Your task to perform on an android device: change alarm snooze length Image 0: 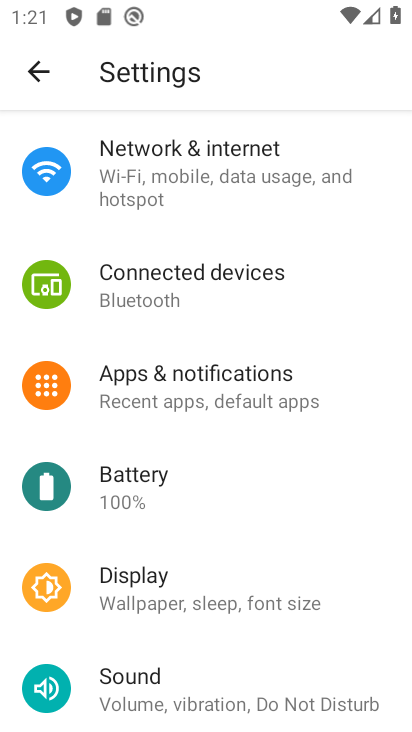
Step 0: press home button
Your task to perform on an android device: change alarm snooze length Image 1: 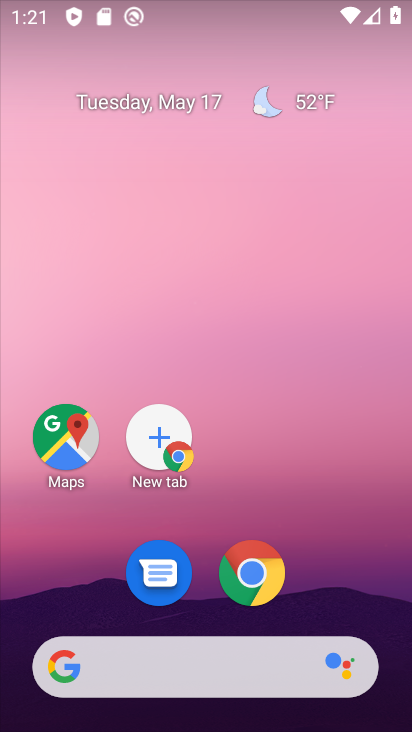
Step 1: drag from (316, 512) to (336, 160)
Your task to perform on an android device: change alarm snooze length Image 2: 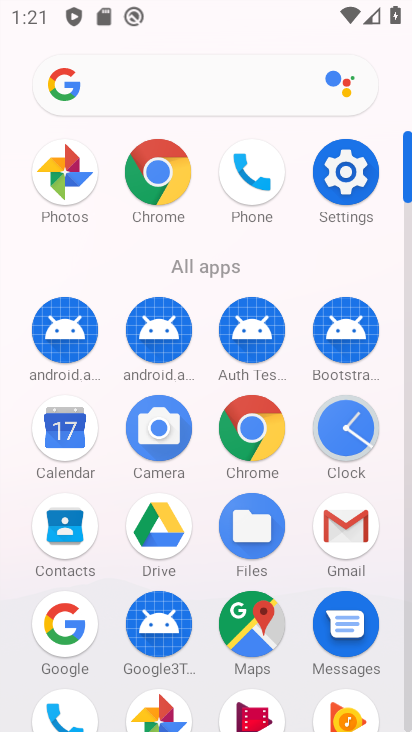
Step 2: click (358, 433)
Your task to perform on an android device: change alarm snooze length Image 3: 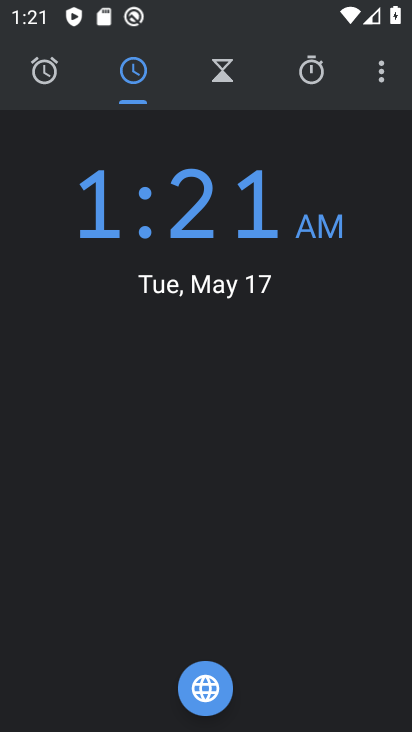
Step 3: click (389, 81)
Your task to perform on an android device: change alarm snooze length Image 4: 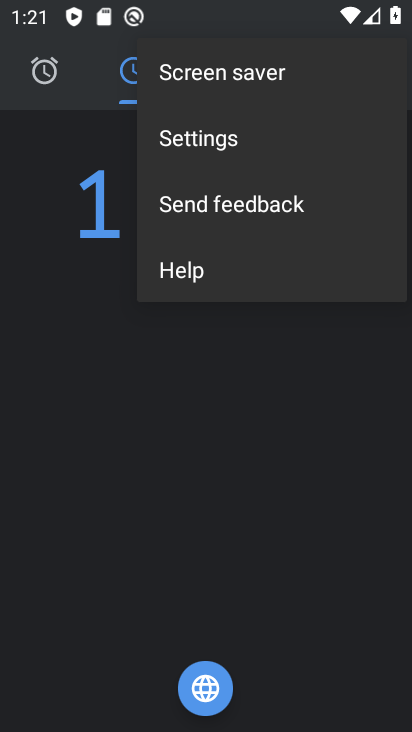
Step 4: click (288, 148)
Your task to perform on an android device: change alarm snooze length Image 5: 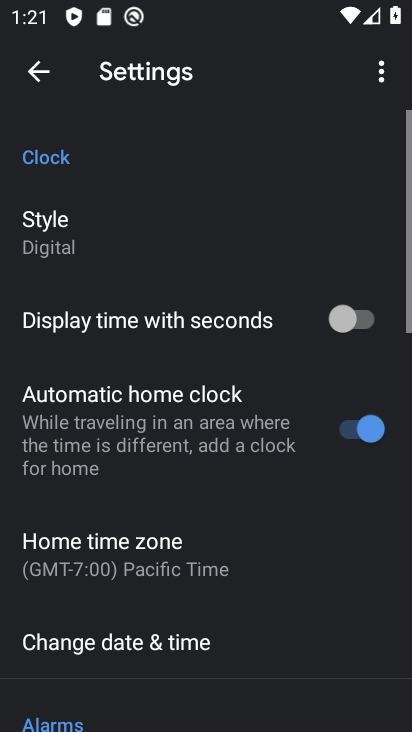
Step 5: drag from (238, 592) to (266, 213)
Your task to perform on an android device: change alarm snooze length Image 6: 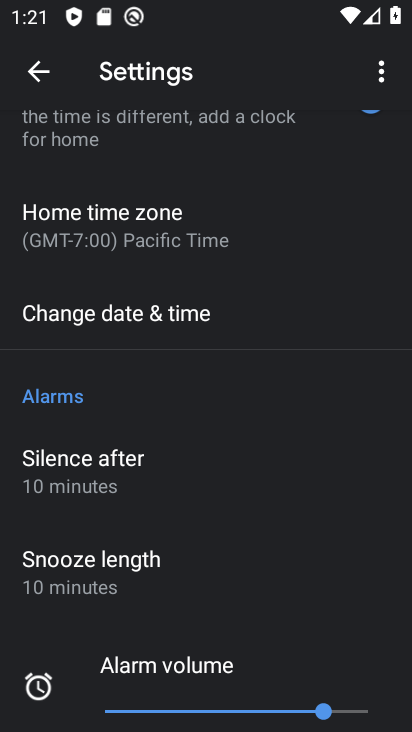
Step 6: click (99, 581)
Your task to perform on an android device: change alarm snooze length Image 7: 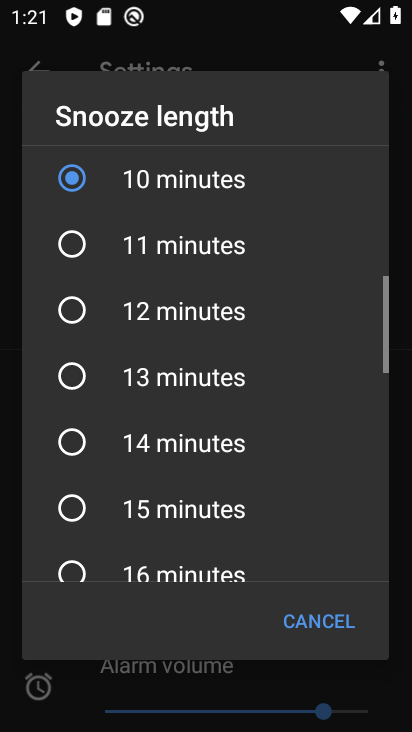
Step 7: click (180, 242)
Your task to perform on an android device: change alarm snooze length Image 8: 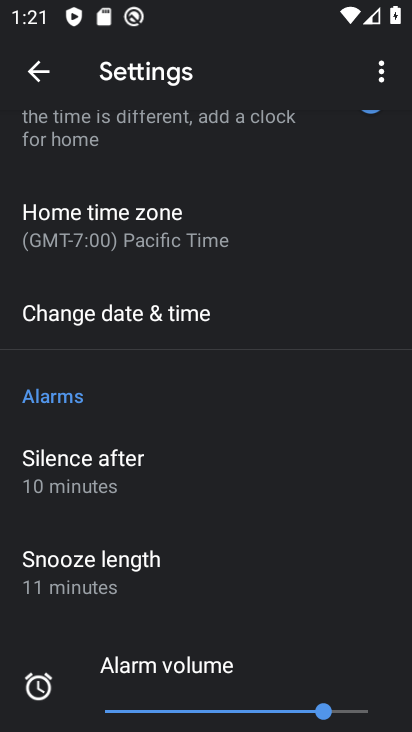
Step 8: task complete